Your task to perform on an android device: Open Google Image 0: 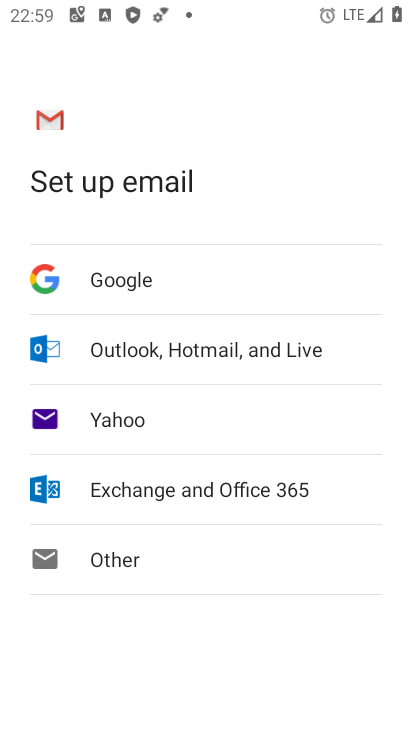
Step 0: press home button
Your task to perform on an android device: Open Google Image 1: 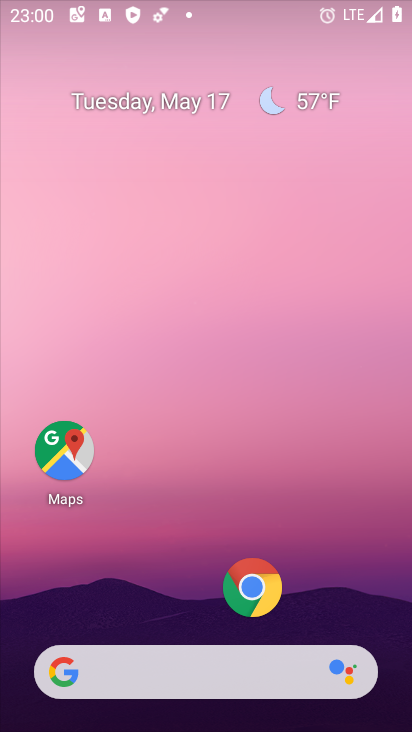
Step 1: drag from (193, 511) to (330, 3)
Your task to perform on an android device: Open Google Image 2: 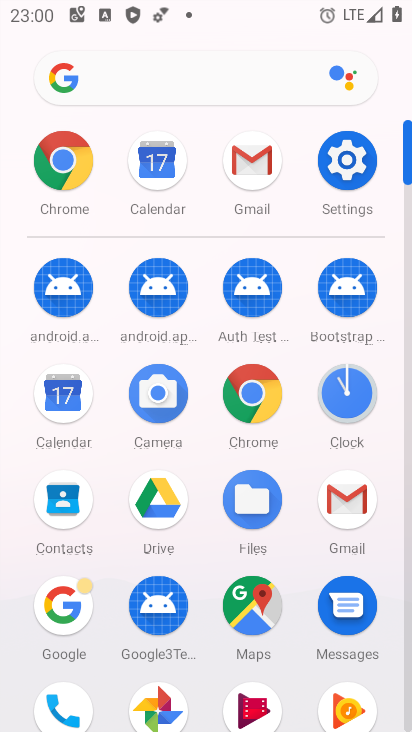
Step 2: click (79, 601)
Your task to perform on an android device: Open Google Image 3: 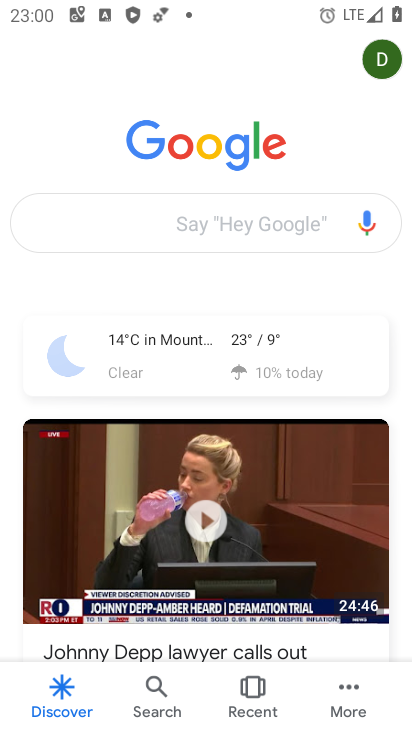
Step 3: task complete